Your task to perform on an android device: turn notification dots off Image 0: 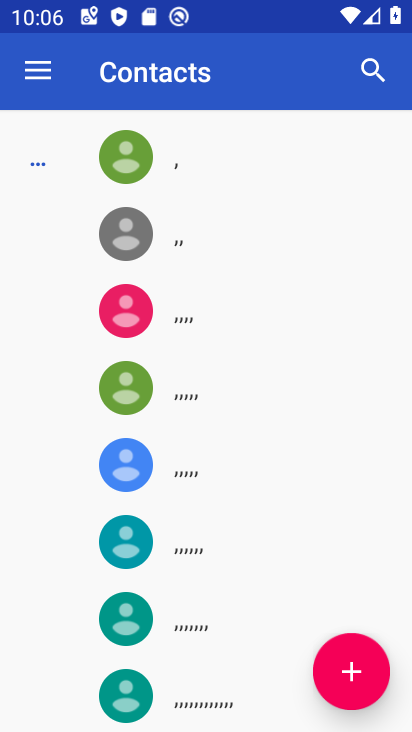
Step 0: press home button
Your task to perform on an android device: turn notification dots off Image 1: 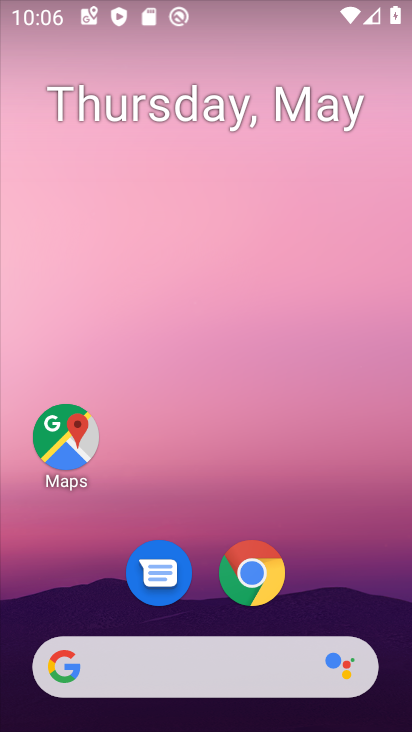
Step 1: drag from (201, 597) to (203, 158)
Your task to perform on an android device: turn notification dots off Image 2: 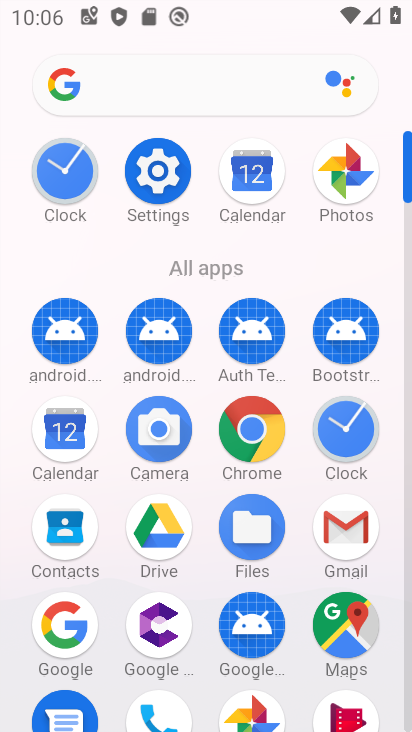
Step 2: click (159, 158)
Your task to perform on an android device: turn notification dots off Image 3: 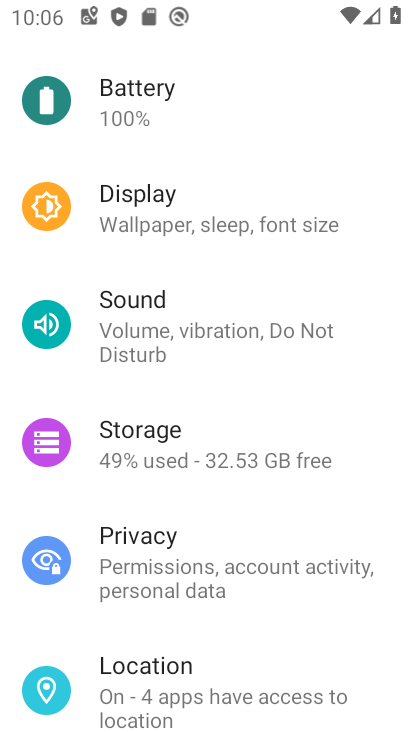
Step 3: drag from (262, 213) to (299, 559)
Your task to perform on an android device: turn notification dots off Image 4: 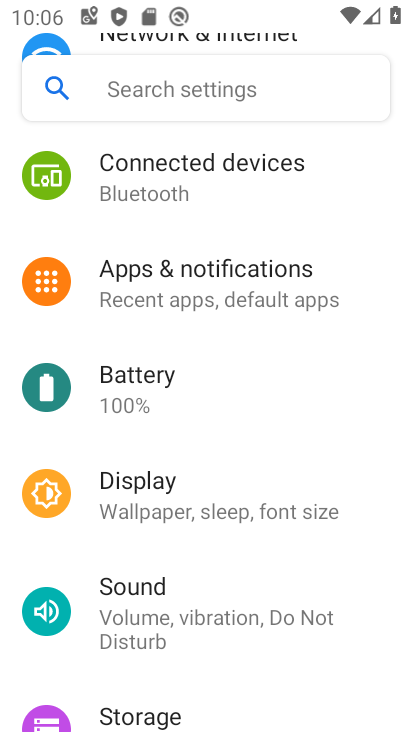
Step 4: click (168, 297)
Your task to perform on an android device: turn notification dots off Image 5: 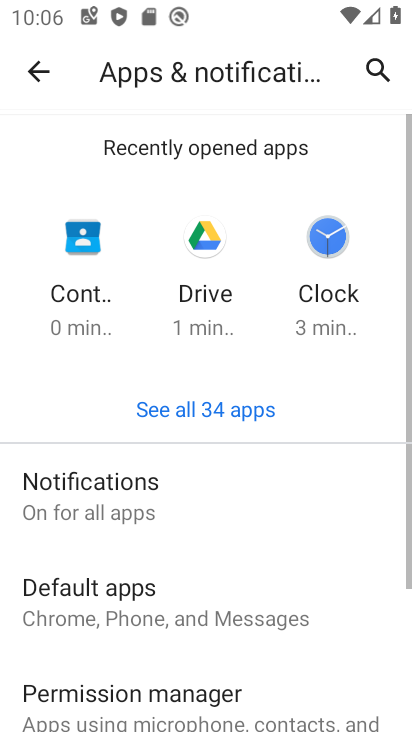
Step 5: click (130, 519)
Your task to perform on an android device: turn notification dots off Image 6: 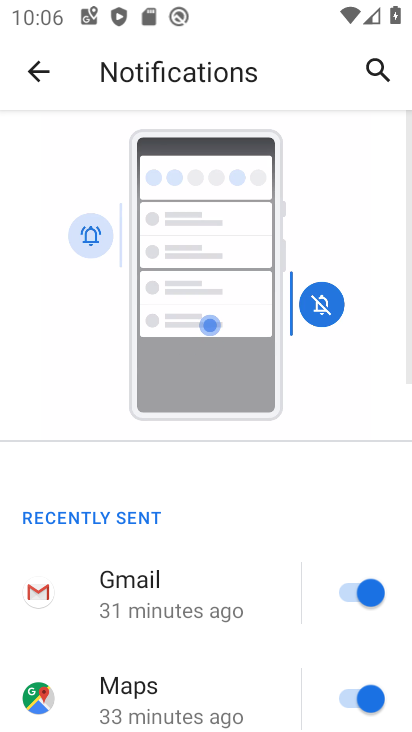
Step 6: drag from (227, 664) to (211, 213)
Your task to perform on an android device: turn notification dots off Image 7: 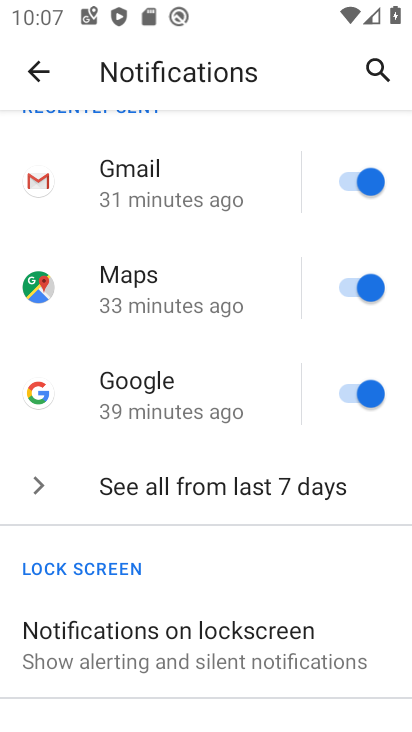
Step 7: drag from (182, 608) to (181, 399)
Your task to perform on an android device: turn notification dots off Image 8: 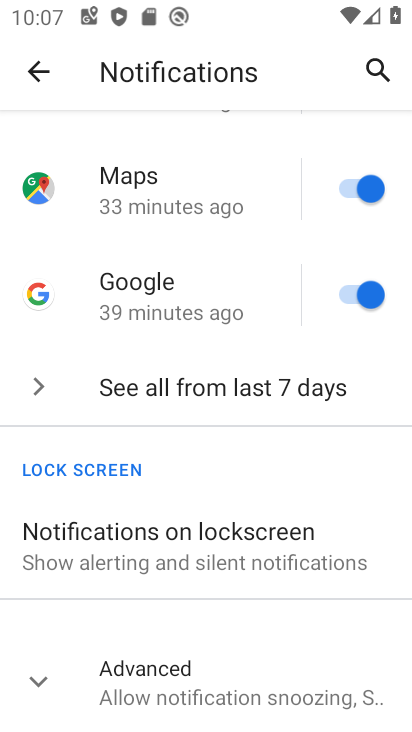
Step 8: drag from (176, 627) to (218, 292)
Your task to perform on an android device: turn notification dots off Image 9: 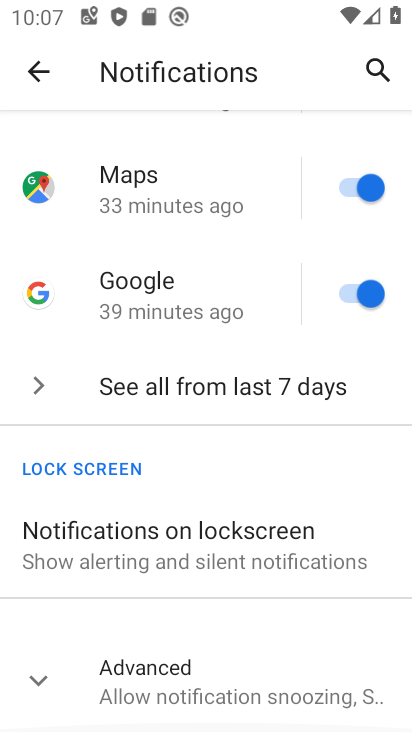
Step 9: click (165, 634)
Your task to perform on an android device: turn notification dots off Image 10: 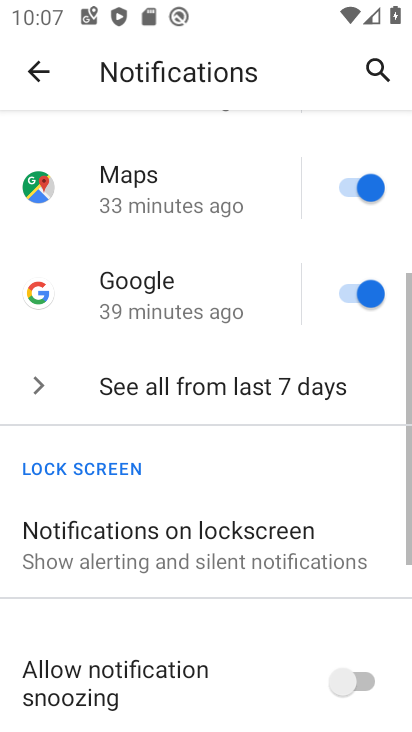
Step 10: task complete